Your task to perform on an android device: change your default location settings in chrome Image 0: 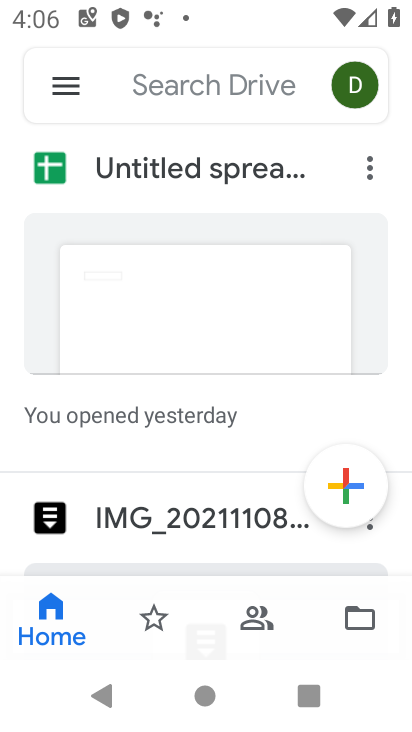
Step 0: press home button
Your task to perform on an android device: change your default location settings in chrome Image 1: 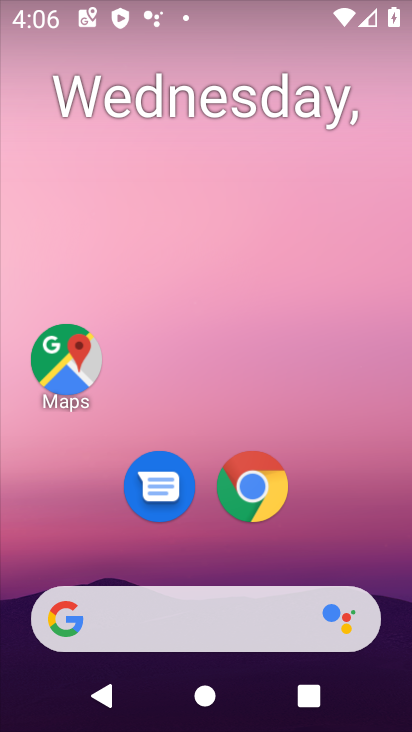
Step 1: click (233, 498)
Your task to perform on an android device: change your default location settings in chrome Image 2: 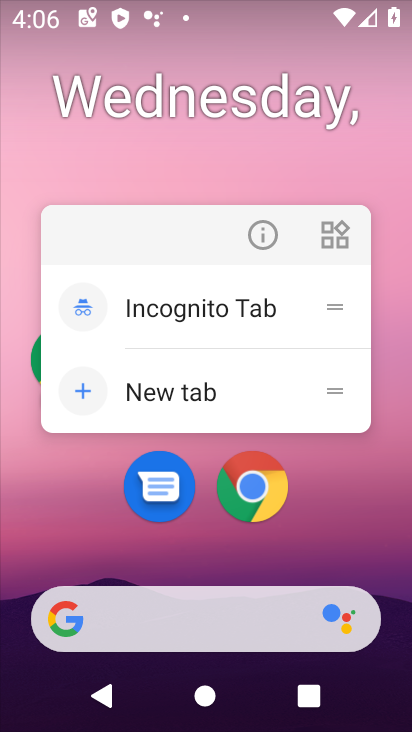
Step 2: click (244, 496)
Your task to perform on an android device: change your default location settings in chrome Image 3: 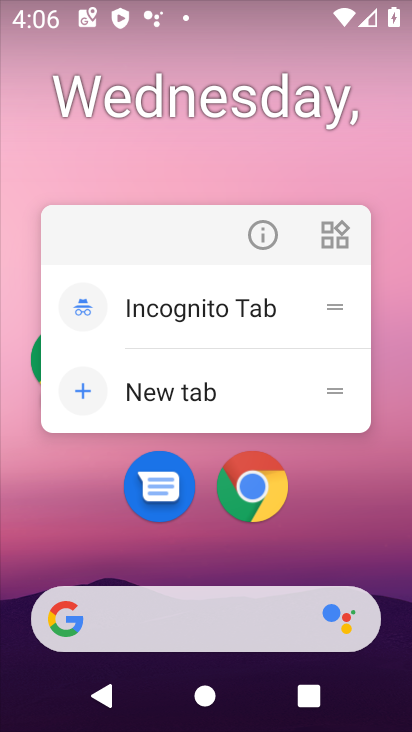
Step 3: click (257, 492)
Your task to perform on an android device: change your default location settings in chrome Image 4: 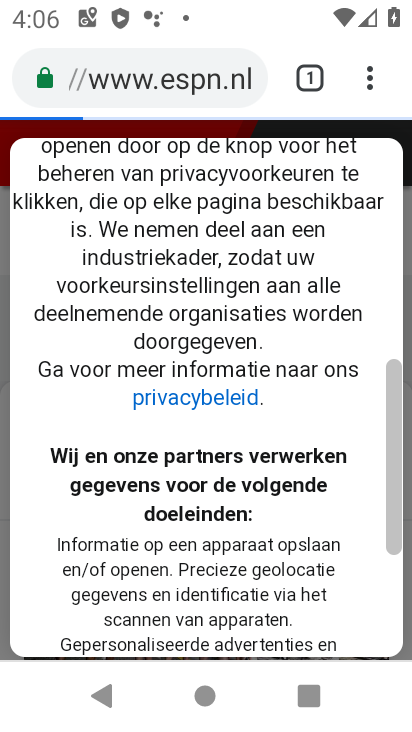
Step 4: click (362, 69)
Your task to perform on an android device: change your default location settings in chrome Image 5: 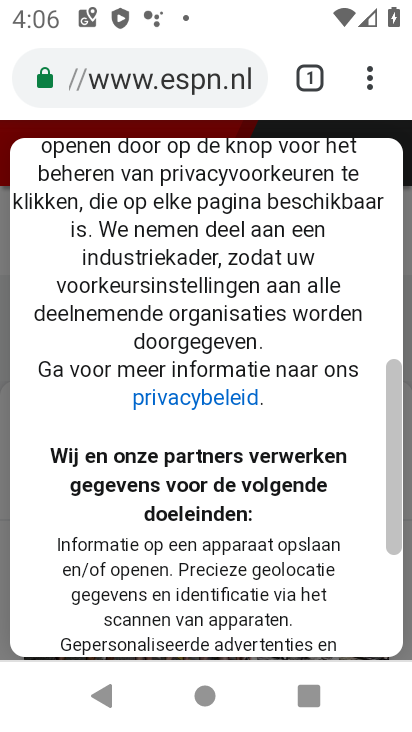
Step 5: click (370, 85)
Your task to perform on an android device: change your default location settings in chrome Image 6: 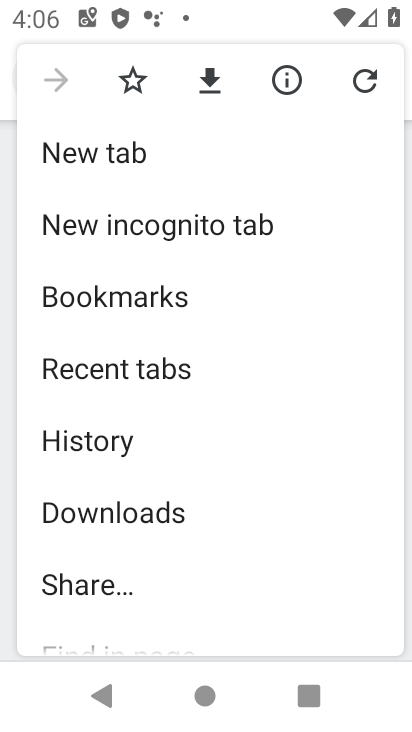
Step 6: drag from (266, 608) to (247, 207)
Your task to perform on an android device: change your default location settings in chrome Image 7: 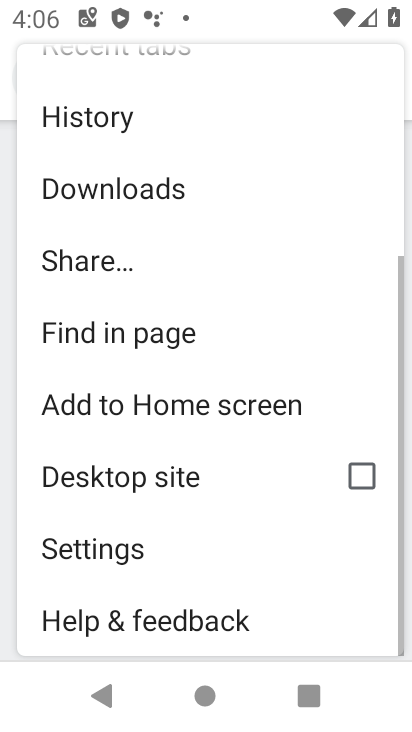
Step 7: click (128, 564)
Your task to perform on an android device: change your default location settings in chrome Image 8: 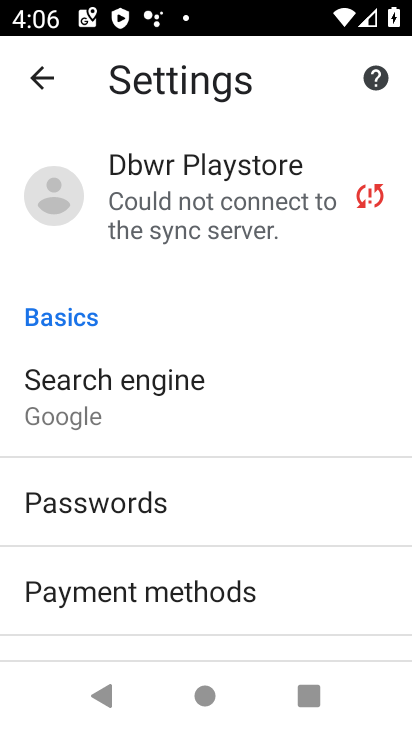
Step 8: drag from (151, 648) to (134, 313)
Your task to perform on an android device: change your default location settings in chrome Image 9: 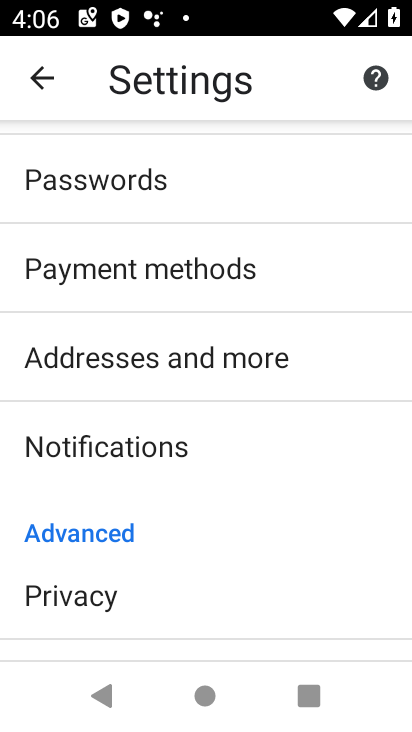
Step 9: drag from (102, 621) to (102, 283)
Your task to perform on an android device: change your default location settings in chrome Image 10: 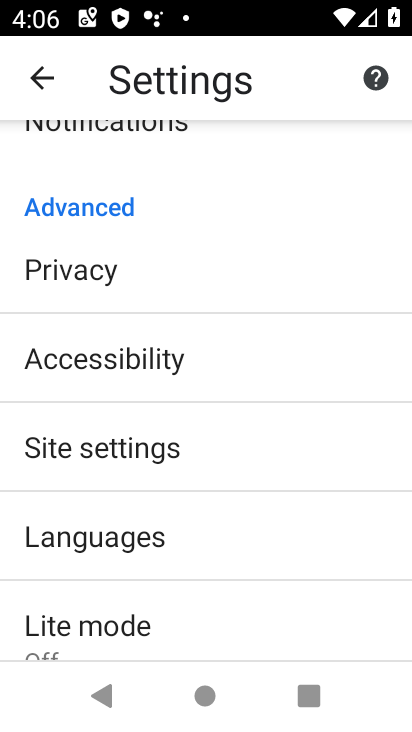
Step 10: click (111, 449)
Your task to perform on an android device: change your default location settings in chrome Image 11: 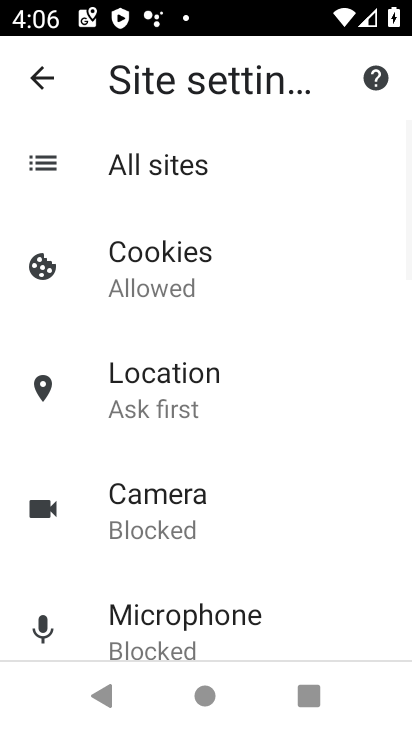
Step 11: click (187, 384)
Your task to perform on an android device: change your default location settings in chrome Image 12: 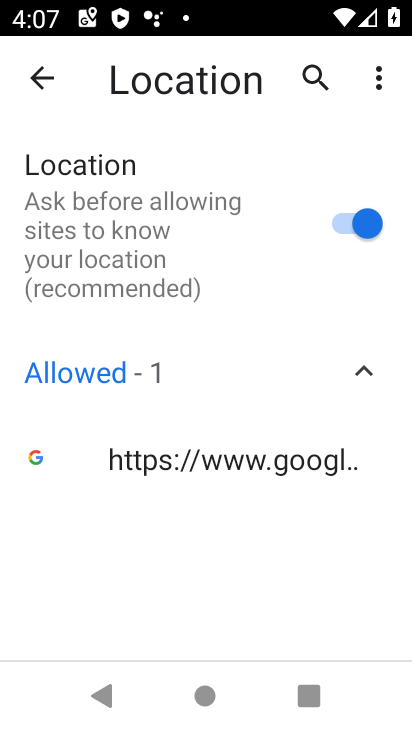
Step 12: task complete